Your task to perform on an android device: Open Android settings Image 0: 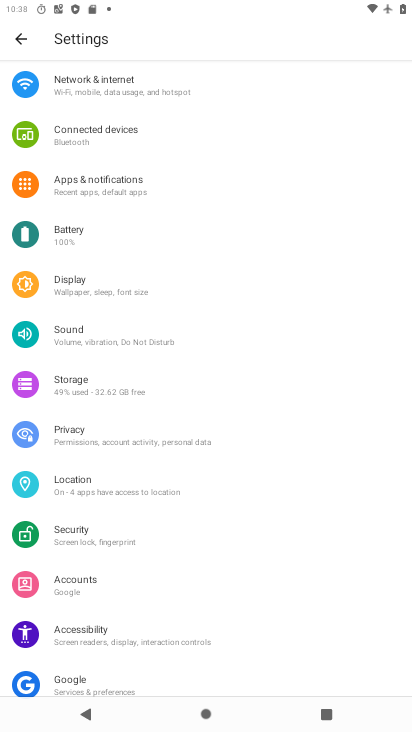
Step 0: task complete